Your task to perform on an android device: Go to Reddit.com Image 0: 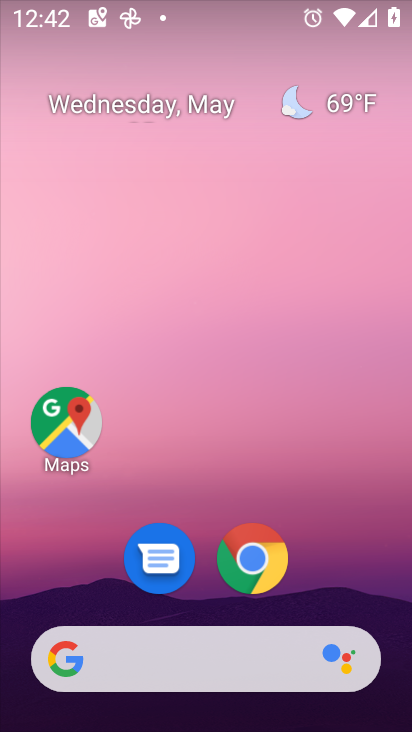
Step 0: drag from (393, 592) to (238, 2)
Your task to perform on an android device: Go to Reddit.com Image 1: 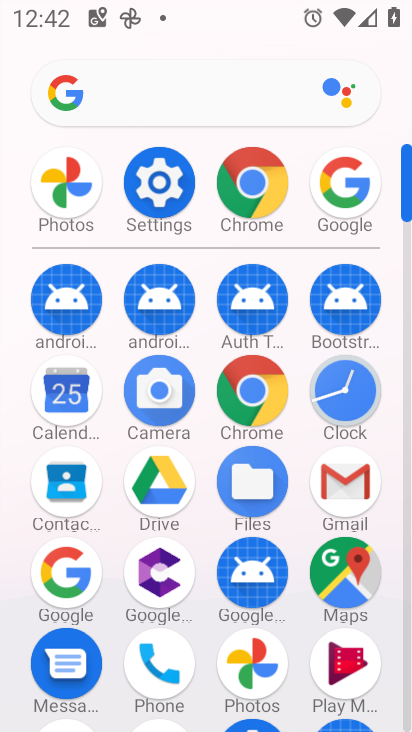
Step 1: click (79, 574)
Your task to perform on an android device: Go to Reddit.com Image 2: 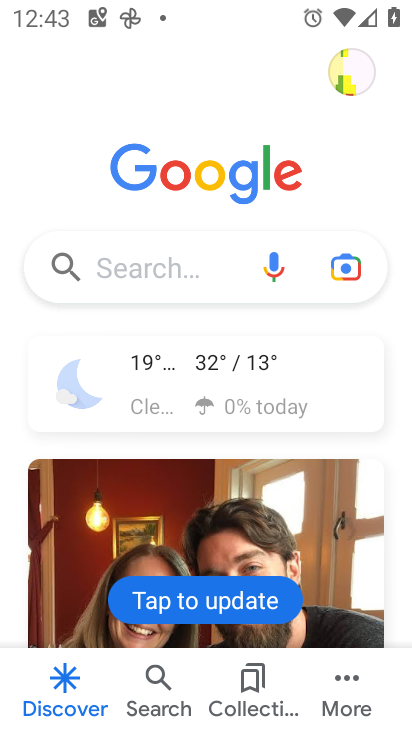
Step 2: click (145, 282)
Your task to perform on an android device: Go to Reddit.com Image 3: 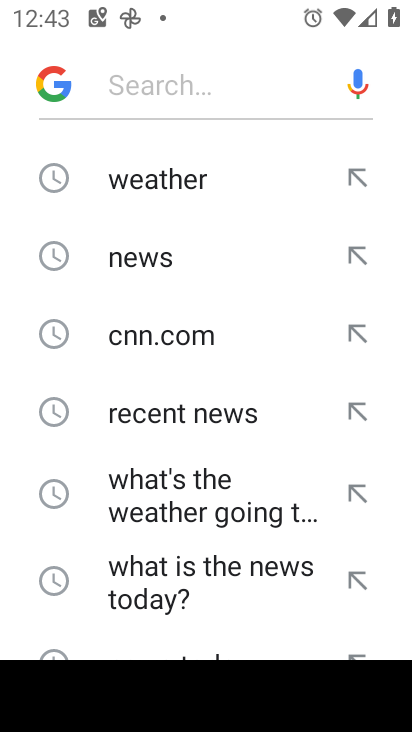
Step 3: drag from (202, 571) to (240, 172)
Your task to perform on an android device: Go to Reddit.com Image 4: 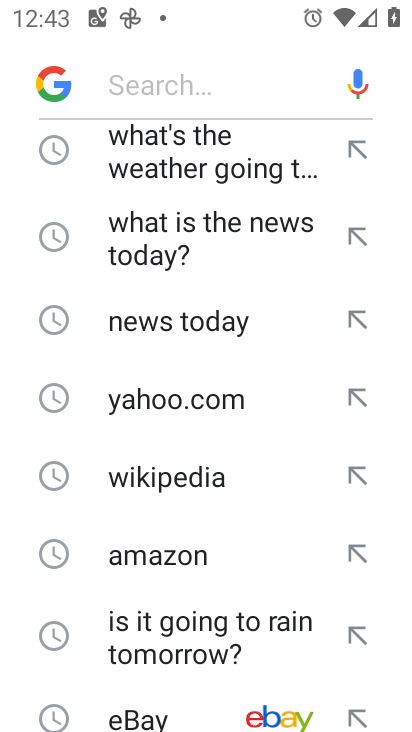
Step 4: drag from (218, 621) to (247, 174)
Your task to perform on an android device: Go to Reddit.com Image 5: 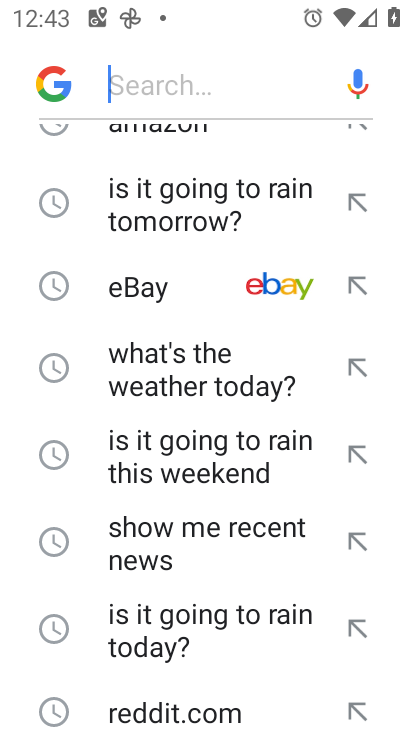
Step 5: click (203, 718)
Your task to perform on an android device: Go to Reddit.com Image 6: 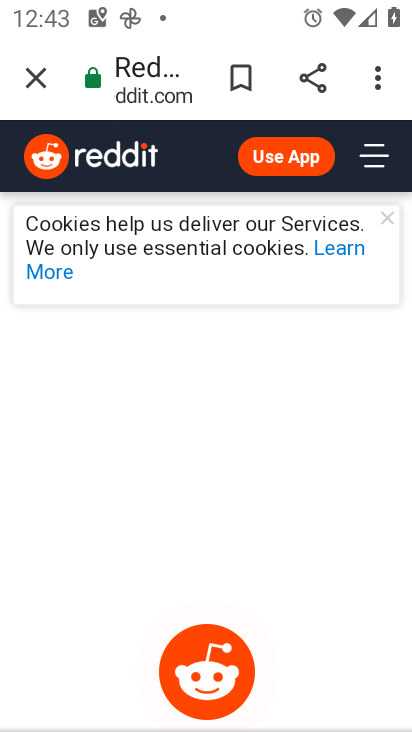
Step 6: task complete